Your task to perform on an android device: Open ESPN.com Image 0: 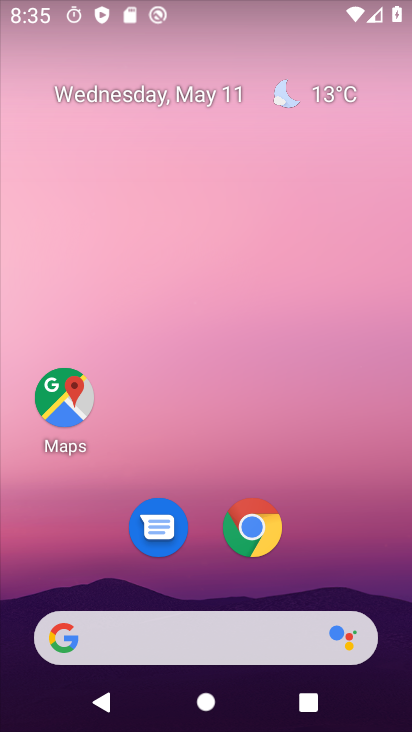
Step 0: drag from (211, 567) to (230, 144)
Your task to perform on an android device: Open ESPN.com Image 1: 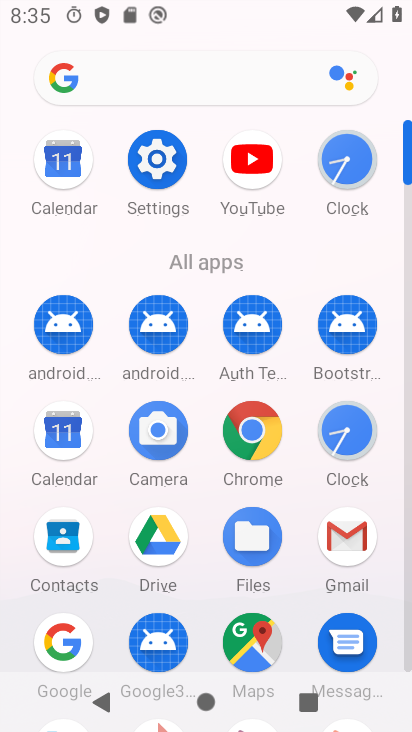
Step 1: click (60, 645)
Your task to perform on an android device: Open ESPN.com Image 2: 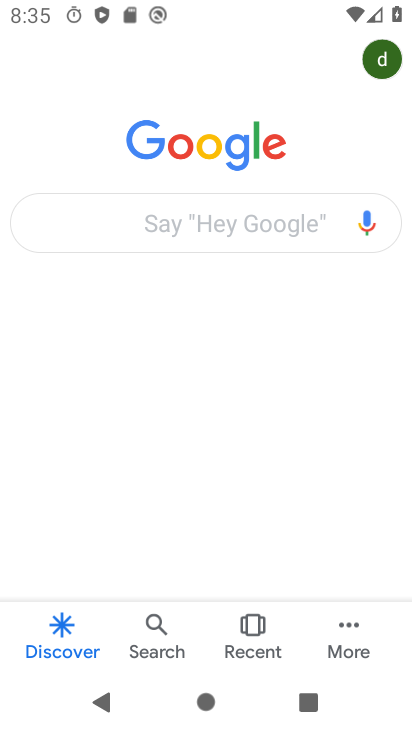
Step 2: click (214, 216)
Your task to perform on an android device: Open ESPN.com Image 3: 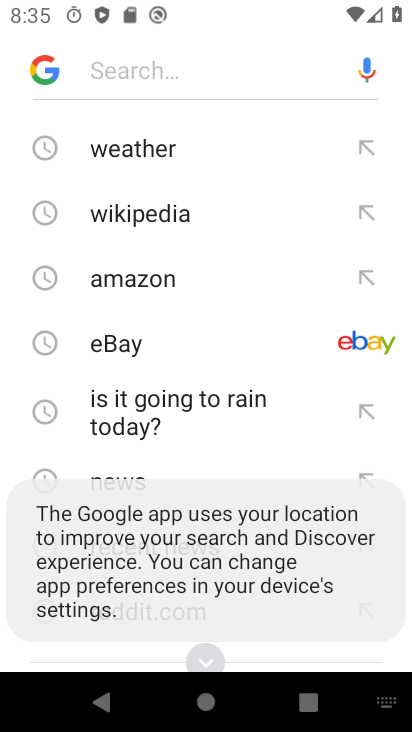
Step 3: drag from (214, 406) to (203, 142)
Your task to perform on an android device: Open ESPN.com Image 4: 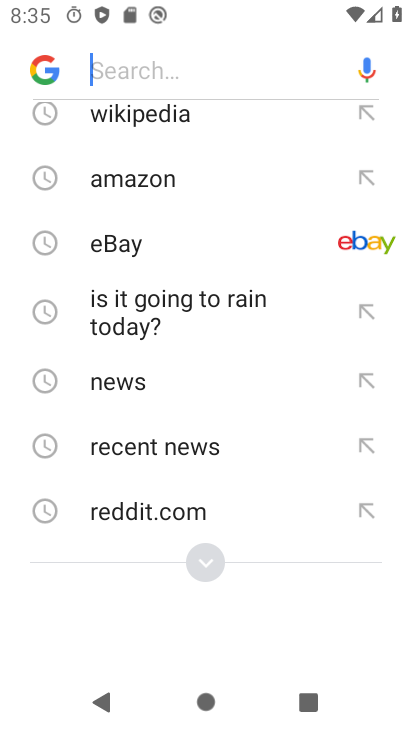
Step 4: type "espn.com"
Your task to perform on an android device: Open ESPN.com Image 5: 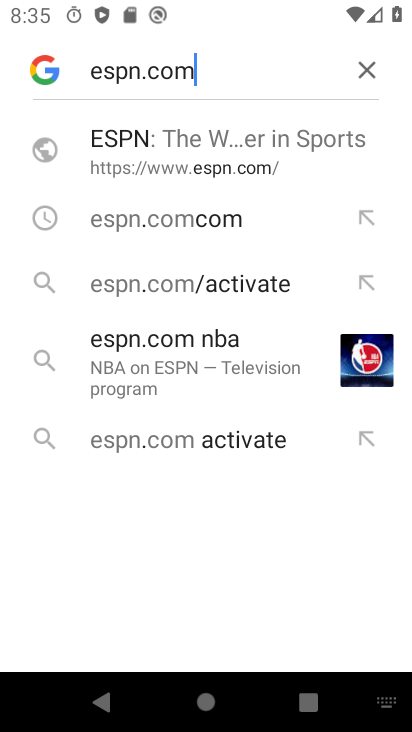
Step 5: click (175, 159)
Your task to perform on an android device: Open ESPN.com Image 6: 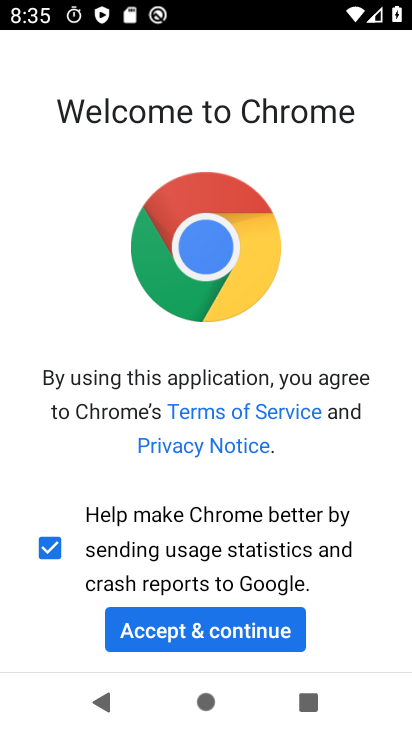
Step 6: click (217, 633)
Your task to perform on an android device: Open ESPN.com Image 7: 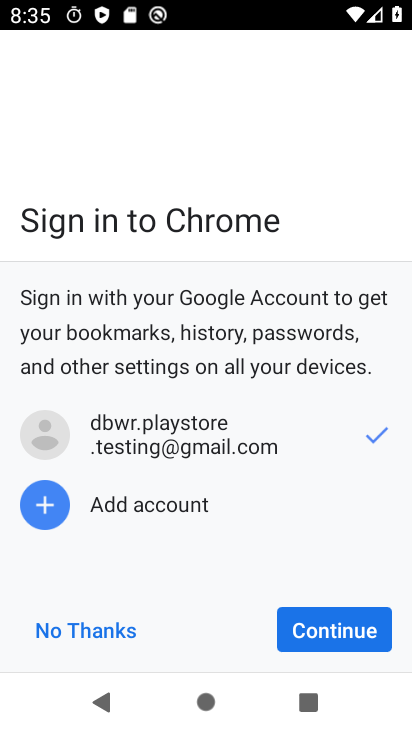
Step 7: click (309, 635)
Your task to perform on an android device: Open ESPN.com Image 8: 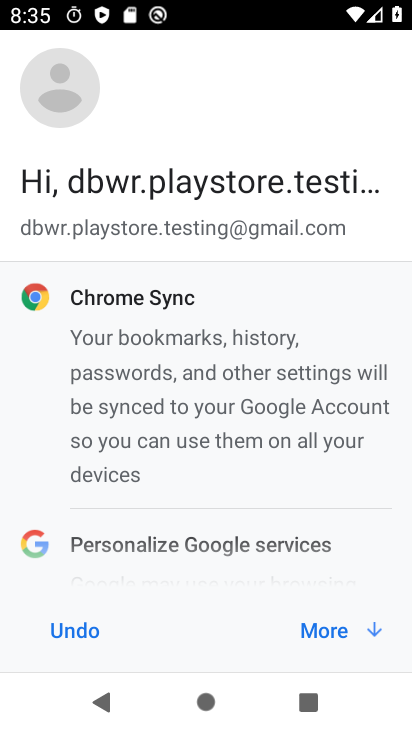
Step 8: click (309, 635)
Your task to perform on an android device: Open ESPN.com Image 9: 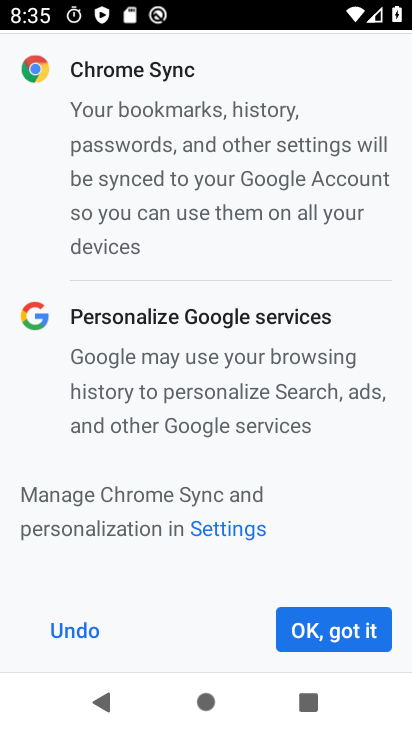
Step 9: click (309, 635)
Your task to perform on an android device: Open ESPN.com Image 10: 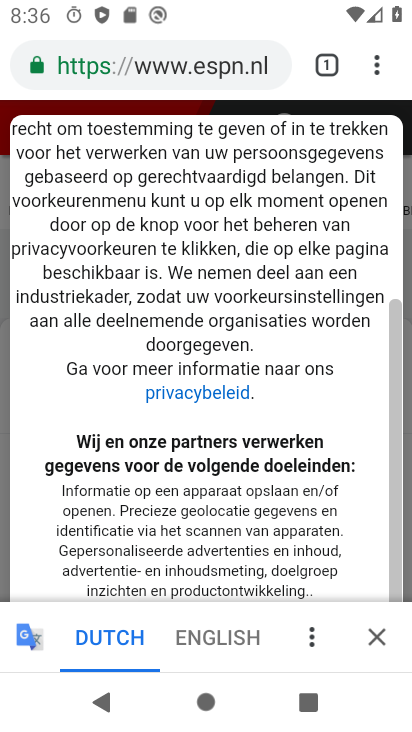
Step 10: task complete